Your task to perform on an android device: turn off airplane mode Image 0: 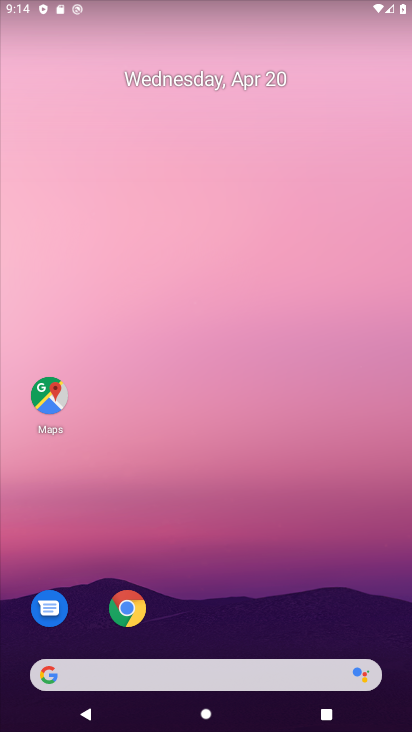
Step 0: drag from (212, 632) to (266, 0)
Your task to perform on an android device: turn off airplane mode Image 1: 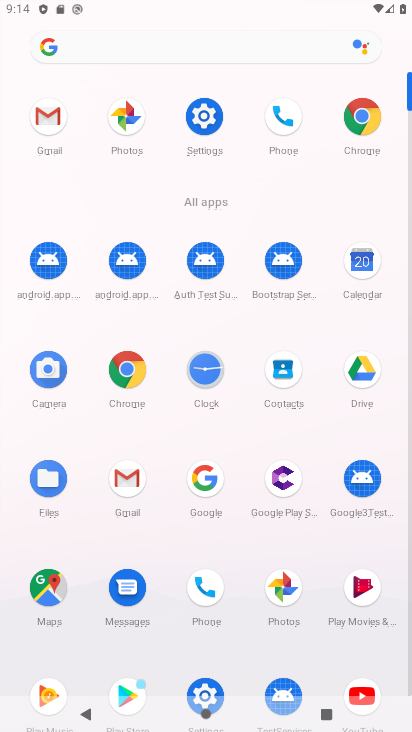
Step 1: click (203, 114)
Your task to perform on an android device: turn off airplane mode Image 2: 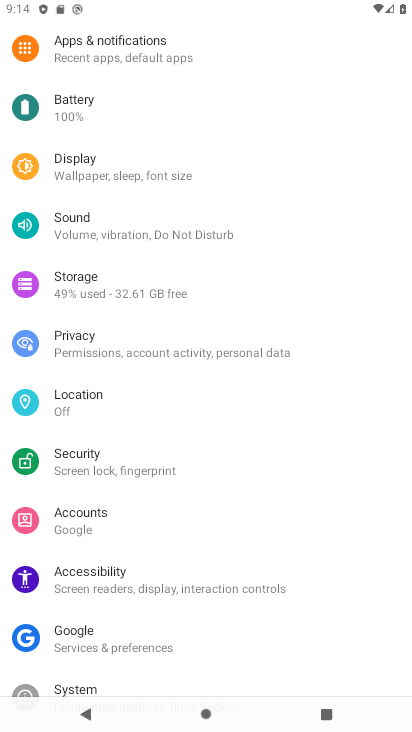
Step 2: drag from (174, 143) to (164, 521)
Your task to perform on an android device: turn off airplane mode Image 3: 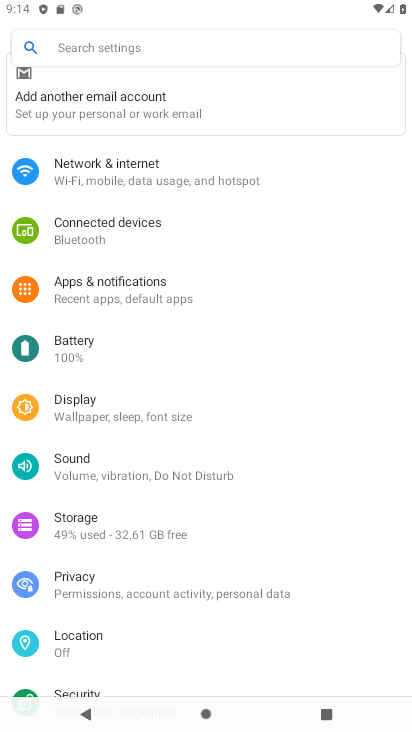
Step 3: click (126, 170)
Your task to perform on an android device: turn off airplane mode Image 4: 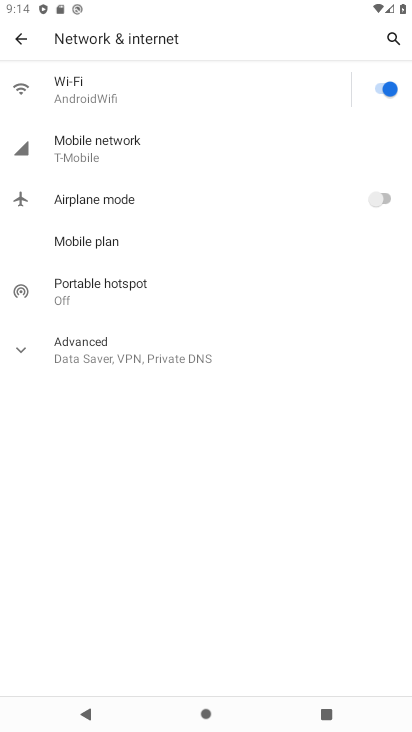
Step 4: task complete